Your task to perform on an android device: delete browsing data in the chrome app Image 0: 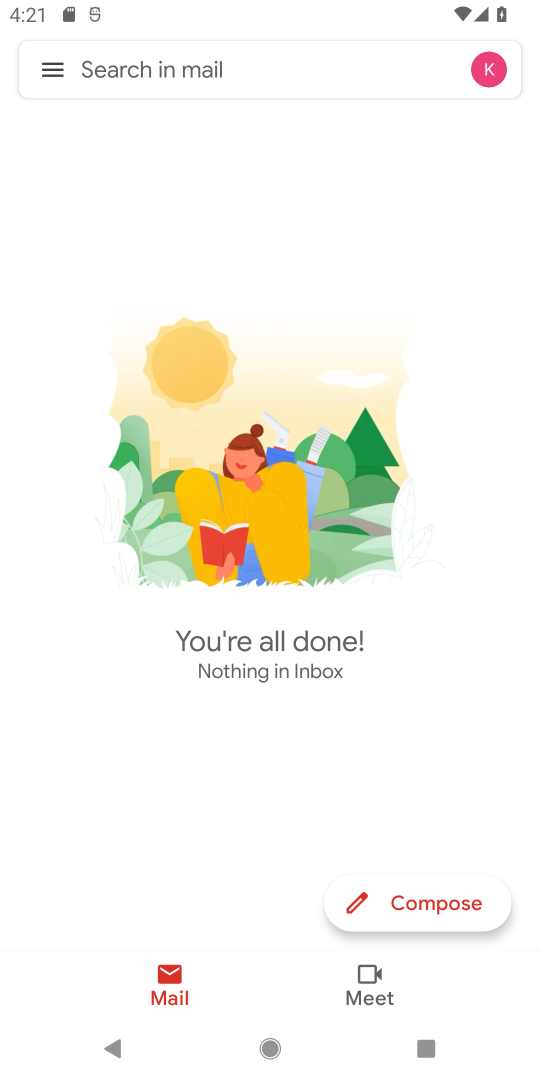
Step 0: press home button
Your task to perform on an android device: delete browsing data in the chrome app Image 1: 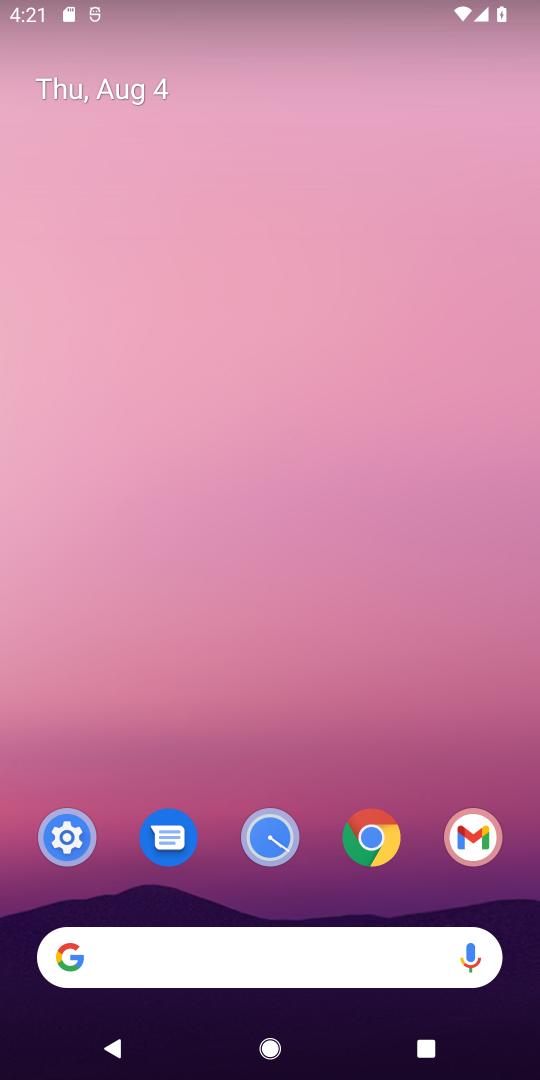
Step 1: click (370, 832)
Your task to perform on an android device: delete browsing data in the chrome app Image 2: 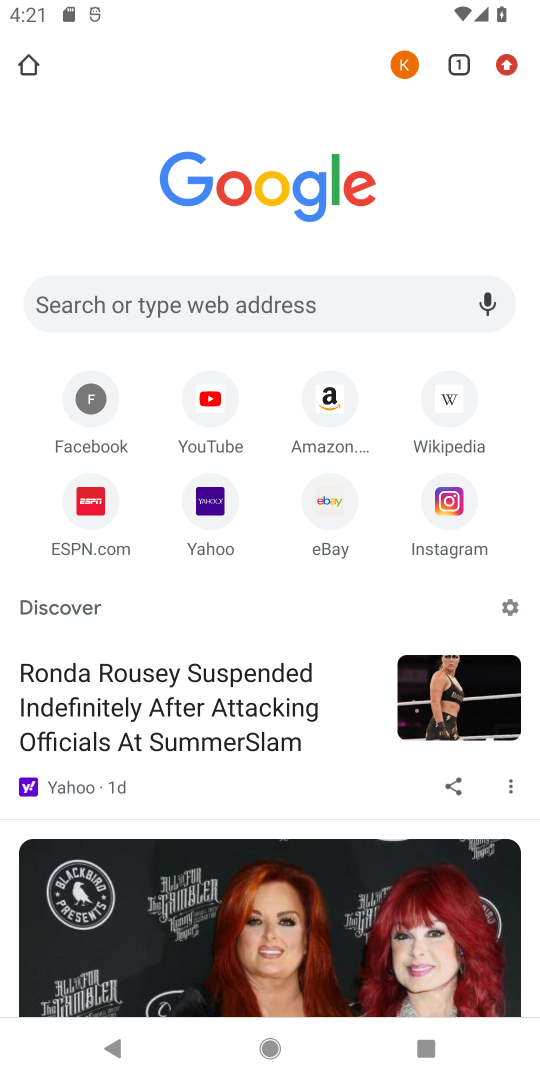
Step 2: click (514, 60)
Your task to perform on an android device: delete browsing data in the chrome app Image 3: 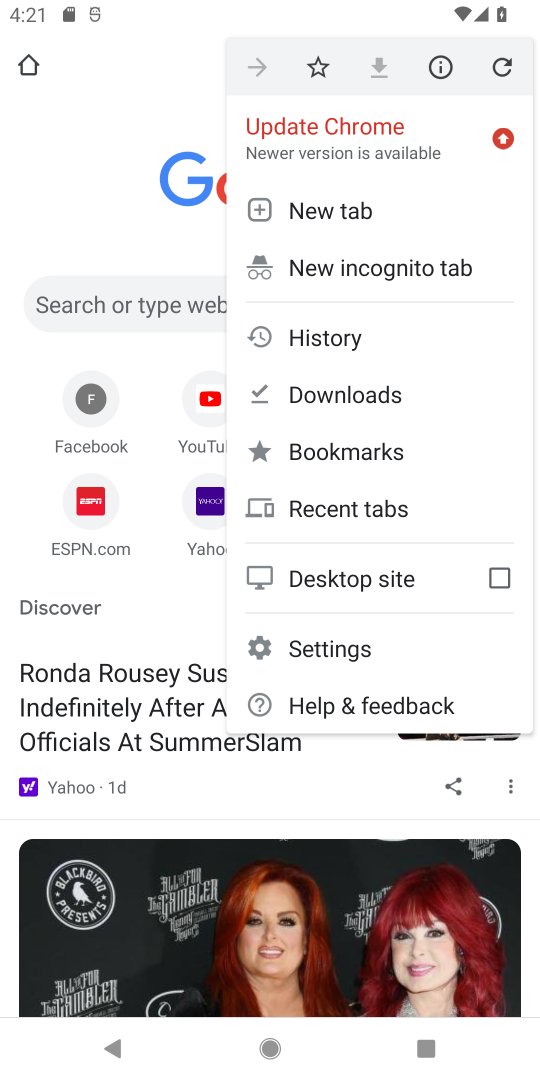
Step 3: click (374, 336)
Your task to perform on an android device: delete browsing data in the chrome app Image 4: 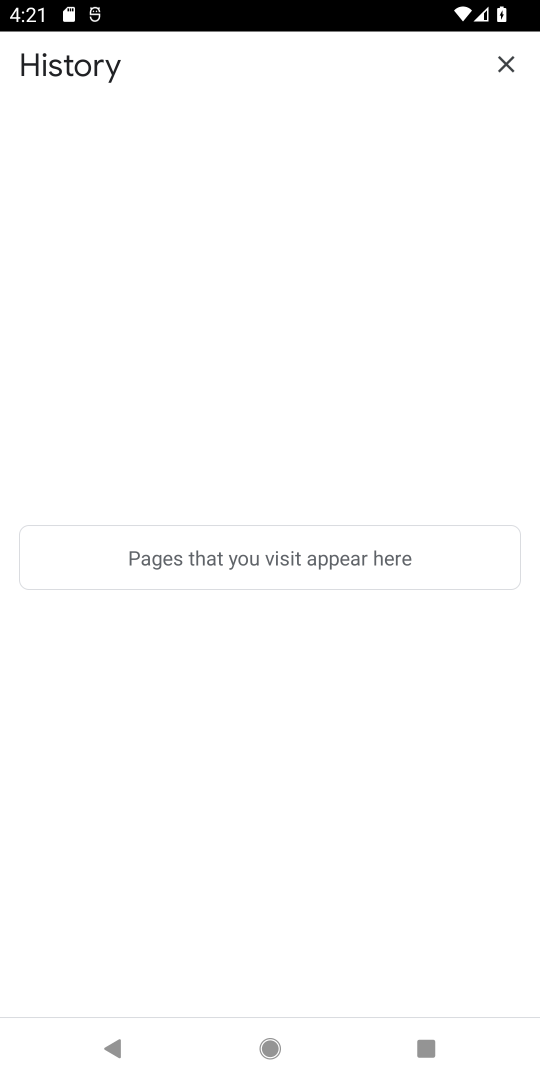
Step 4: task complete